Your task to perform on an android device: Open Chrome and go to the settings page Image 0: 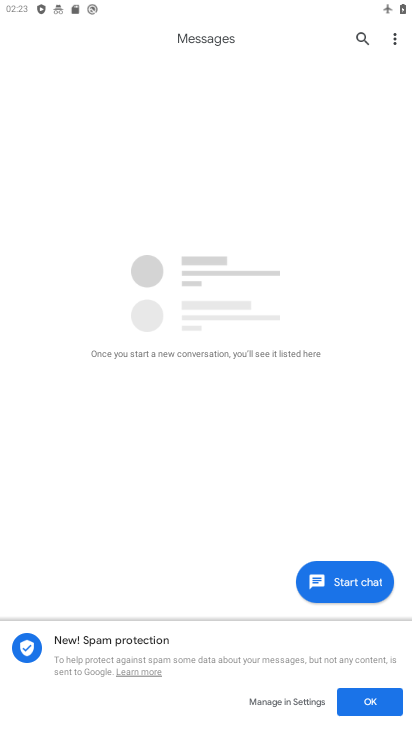
Step 0: press home button
Your task to perform on an android device: Open Chrome and go to the settings page Image 1: 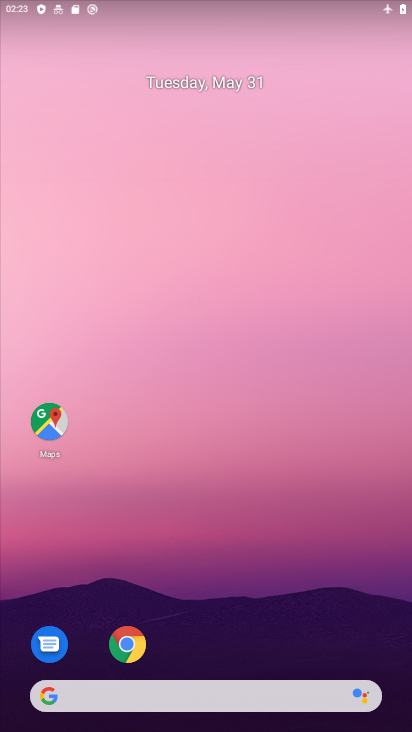
Step 1: click (126, 644)
Your task to perform on an android device: Open Chrome and go to the settings page Image 2: 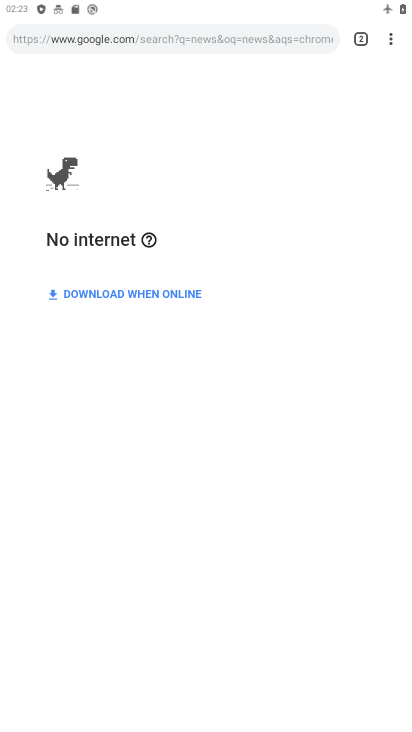
Step 2: task complete